Your task to perform on an android device: Check the weather Image 0: 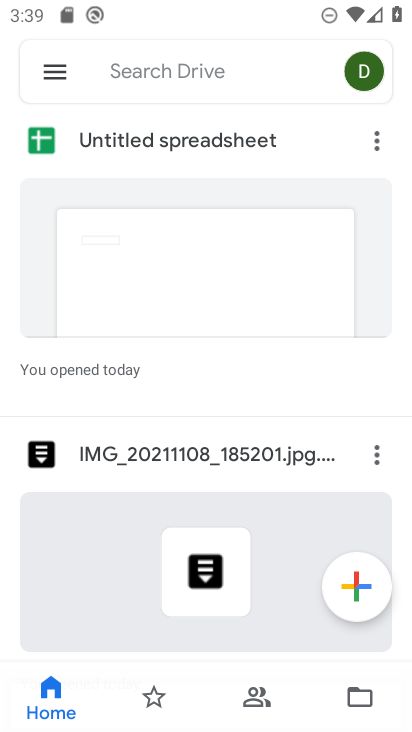
Step 0: press home button
Your task to perform on an android device: Check the weather Image 1: 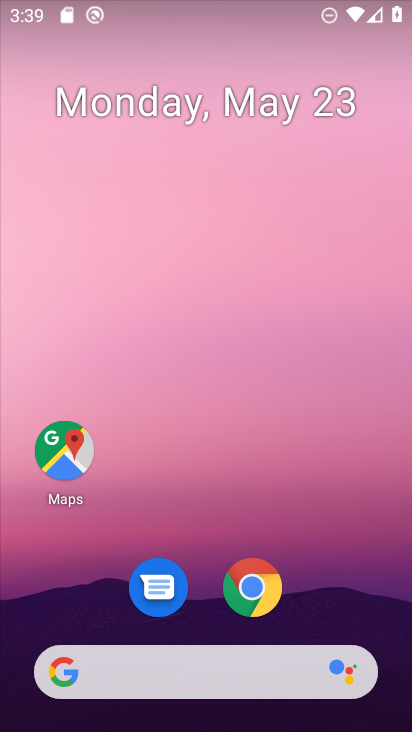
Step 1: drag from (205, 596) to (237, 25)
Your task to perform on an android device: Check the weather Image 2: 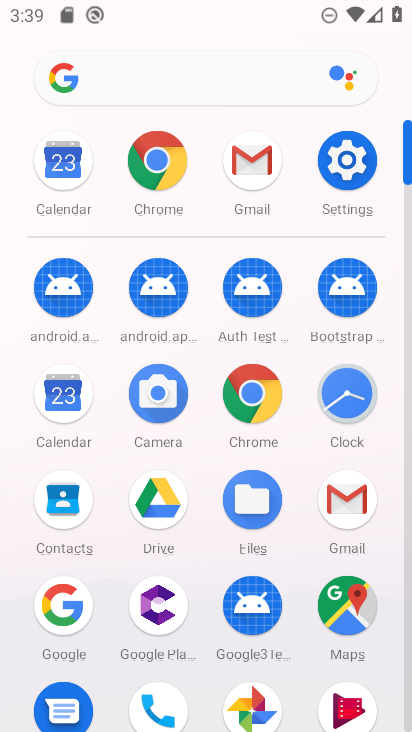
Step 2: click (198, 84)
Your task to perform on an android device: Check the weather Image 3: 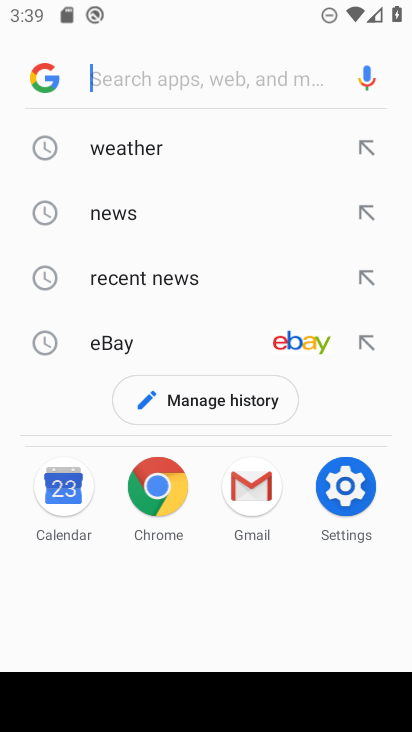
Step 3: click (135, 157)
Your task to perform on an android device: Check the weather Image 4: 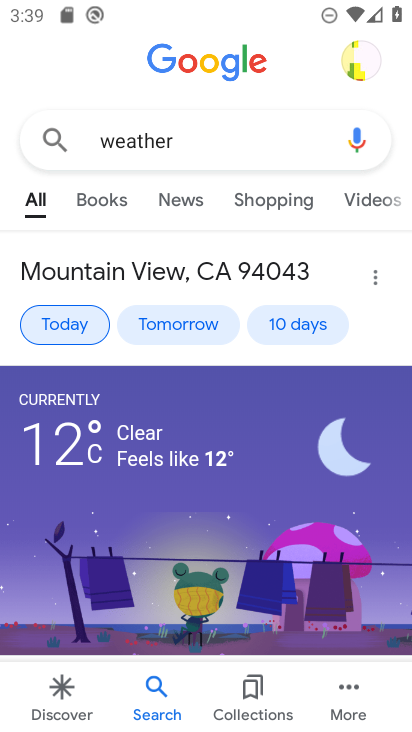
Step 4: task complete